Your task to perform on an android device: Search for the best books of all time on Goodreads Image 0: 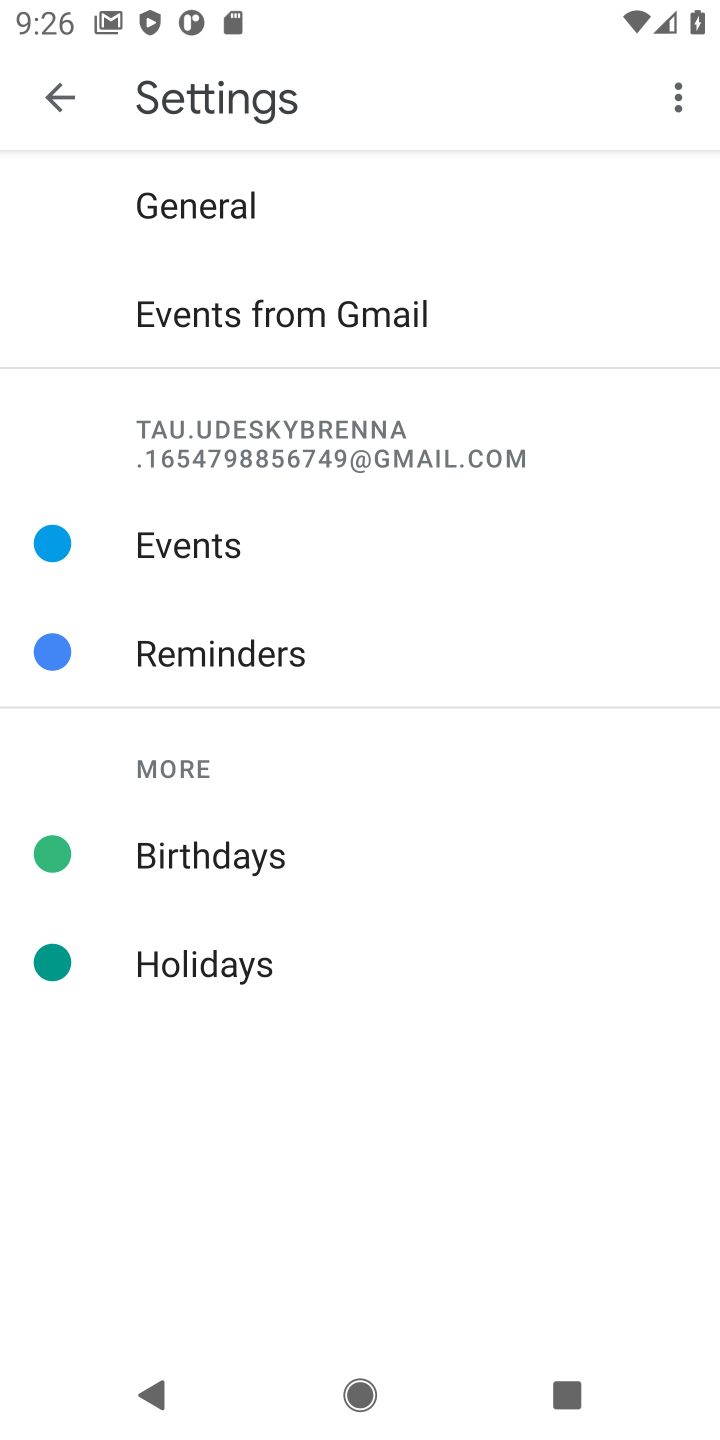
Step 0: press home button
Your task to perform on an android device: Search for the best books of all time on Goodreads Image 1: 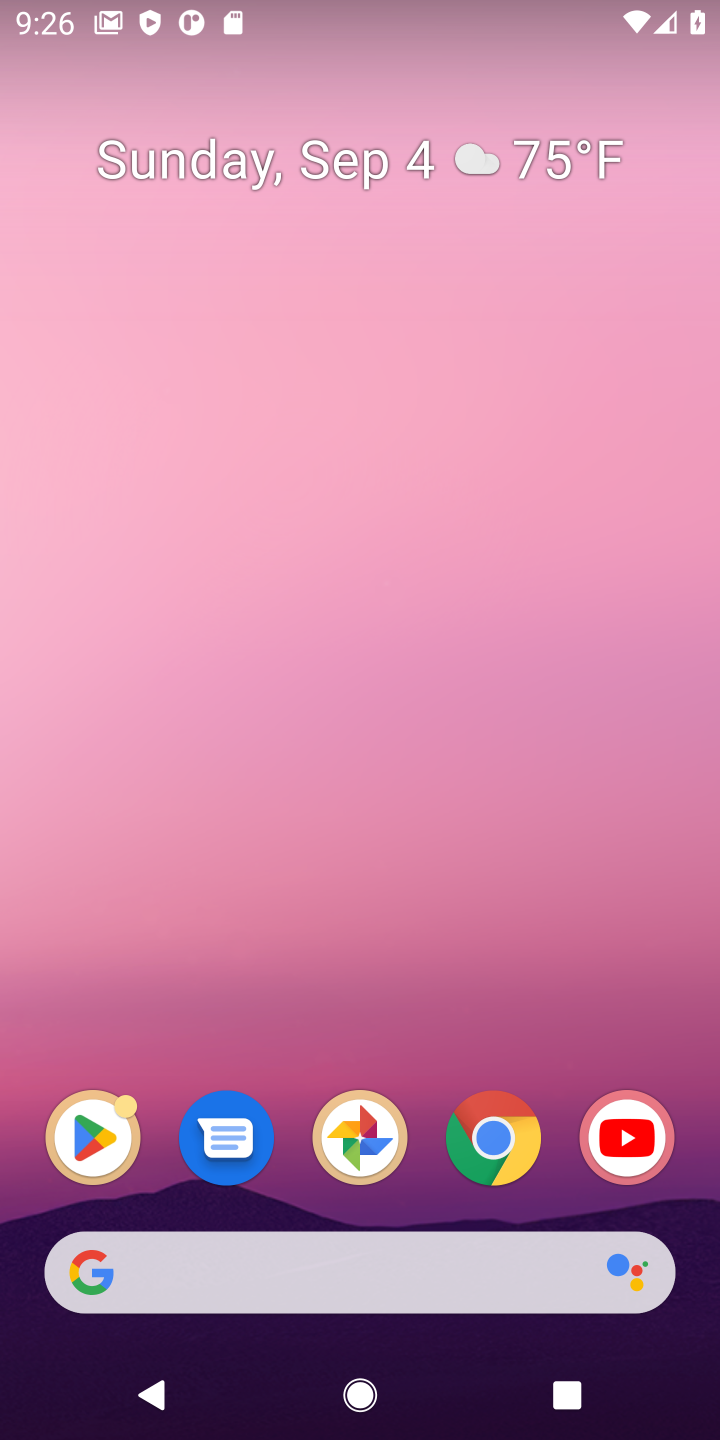
Step 1: click (513, 1132)
Your task to perform on an android device: Search for the best books of all time on Goodreads Image 2: 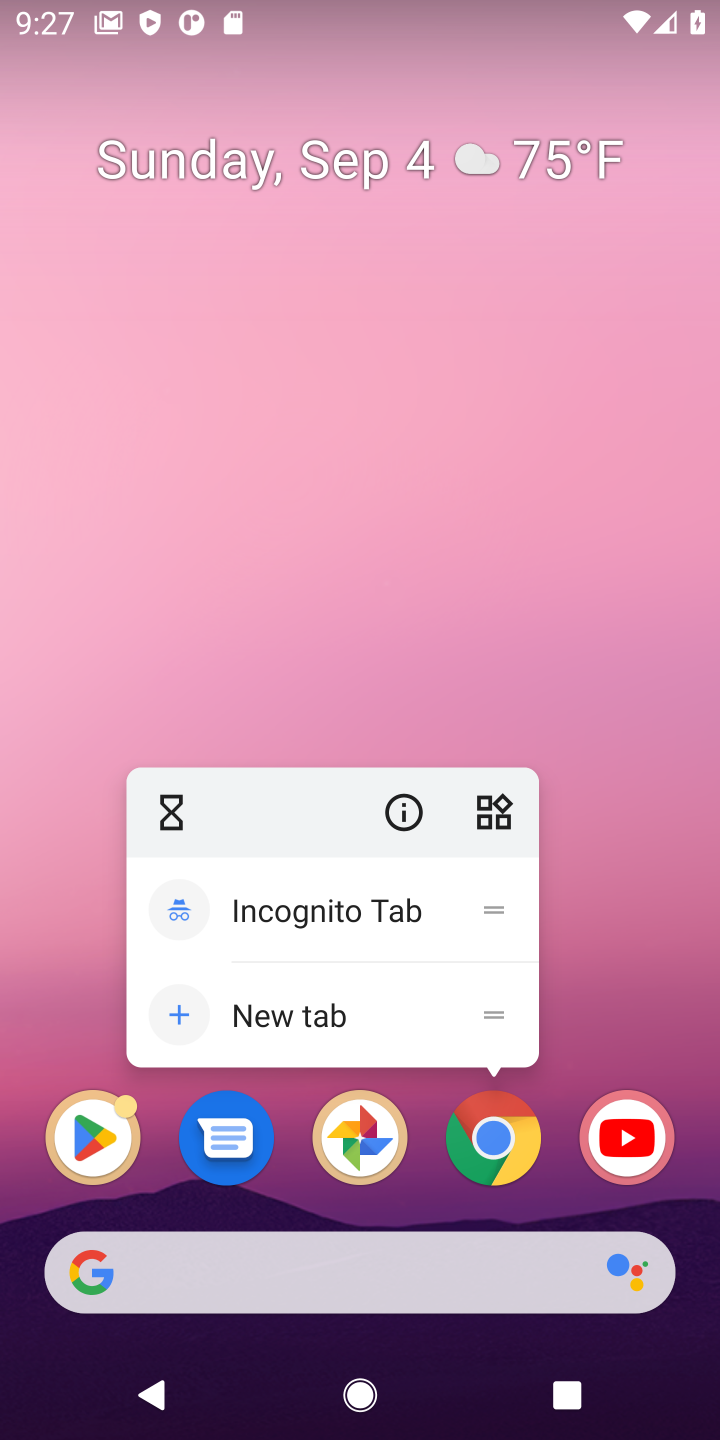
Step 2: click (513, 1132)
Your task to perform on an android device: Search for the best books of all time on Goodreads Image 3: 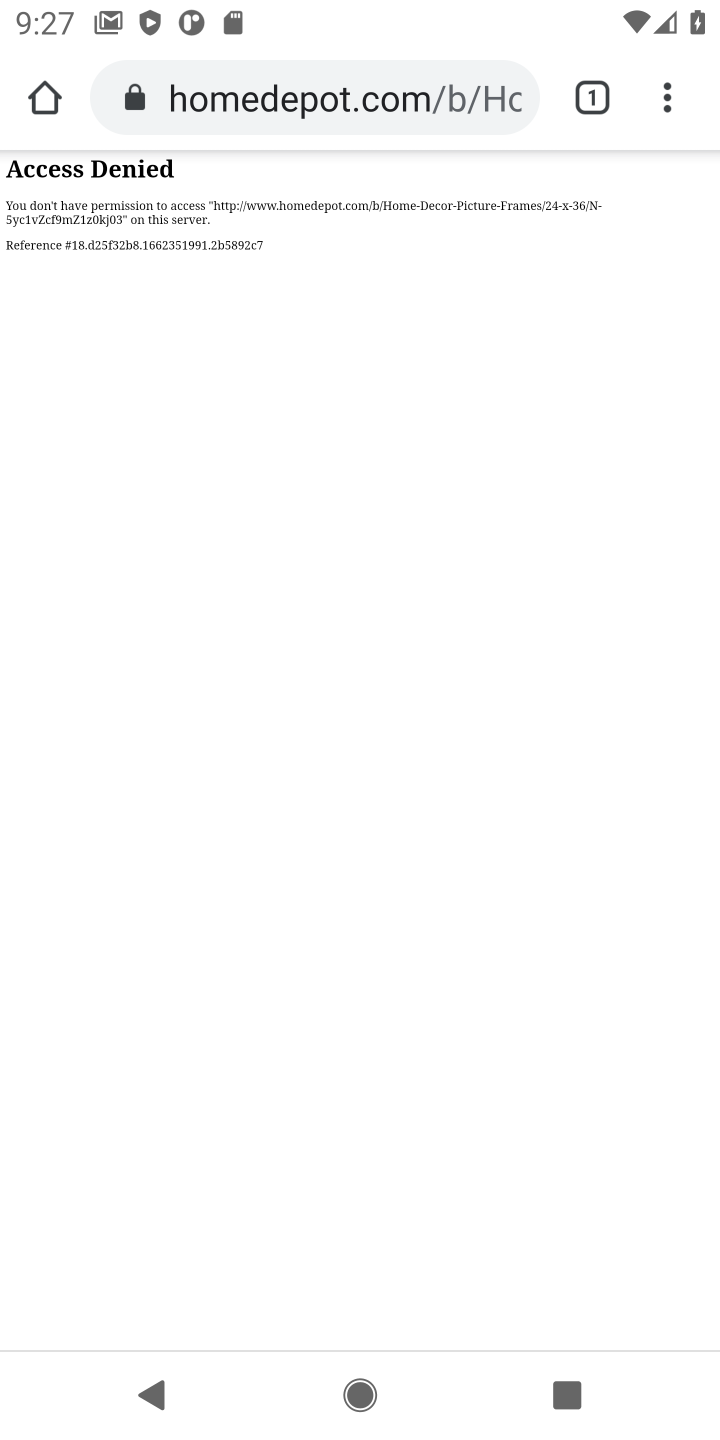
Step 3: click (404, 109)
Your task to perform on an android device: Search for the best books of all time on Goodreads Image 4: 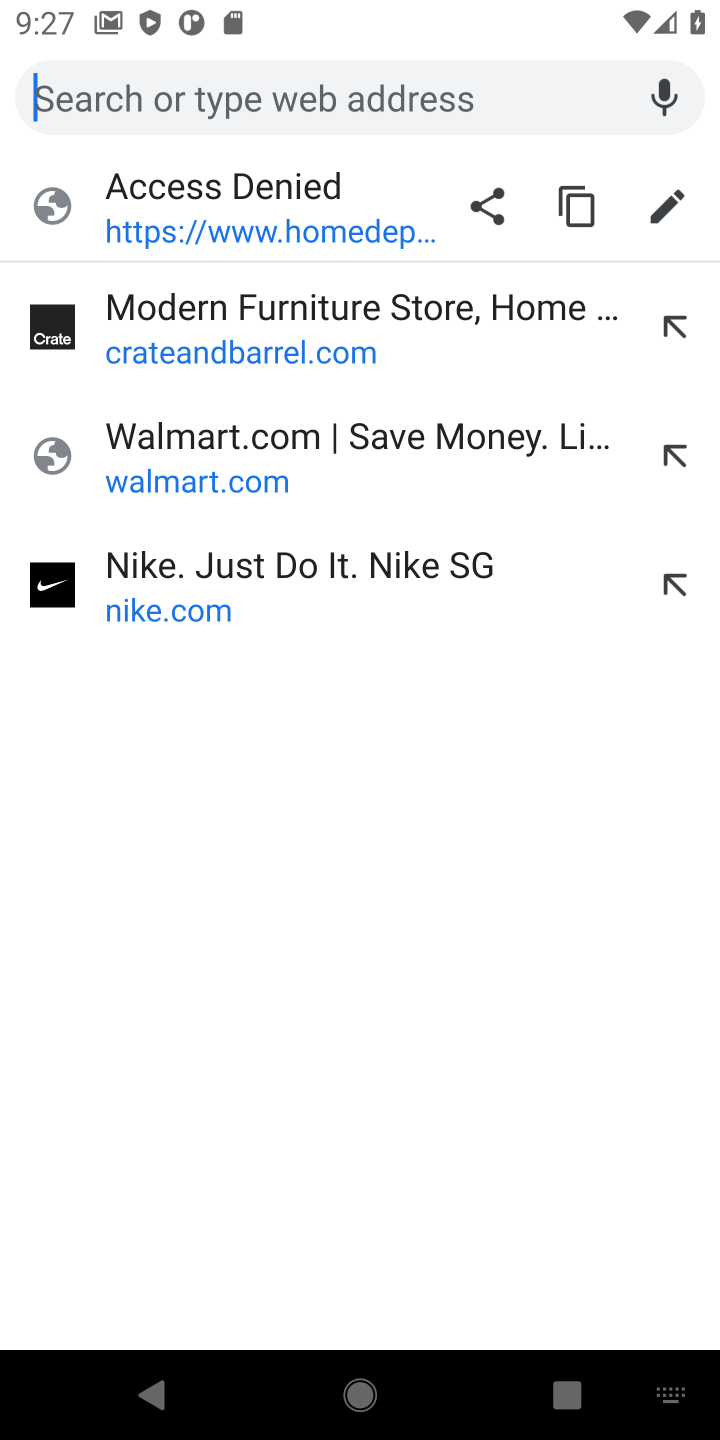
Step 4: type "goodreads"
Your task to perform on an android device: Search for the best books of all time on Goodreads Image 5: 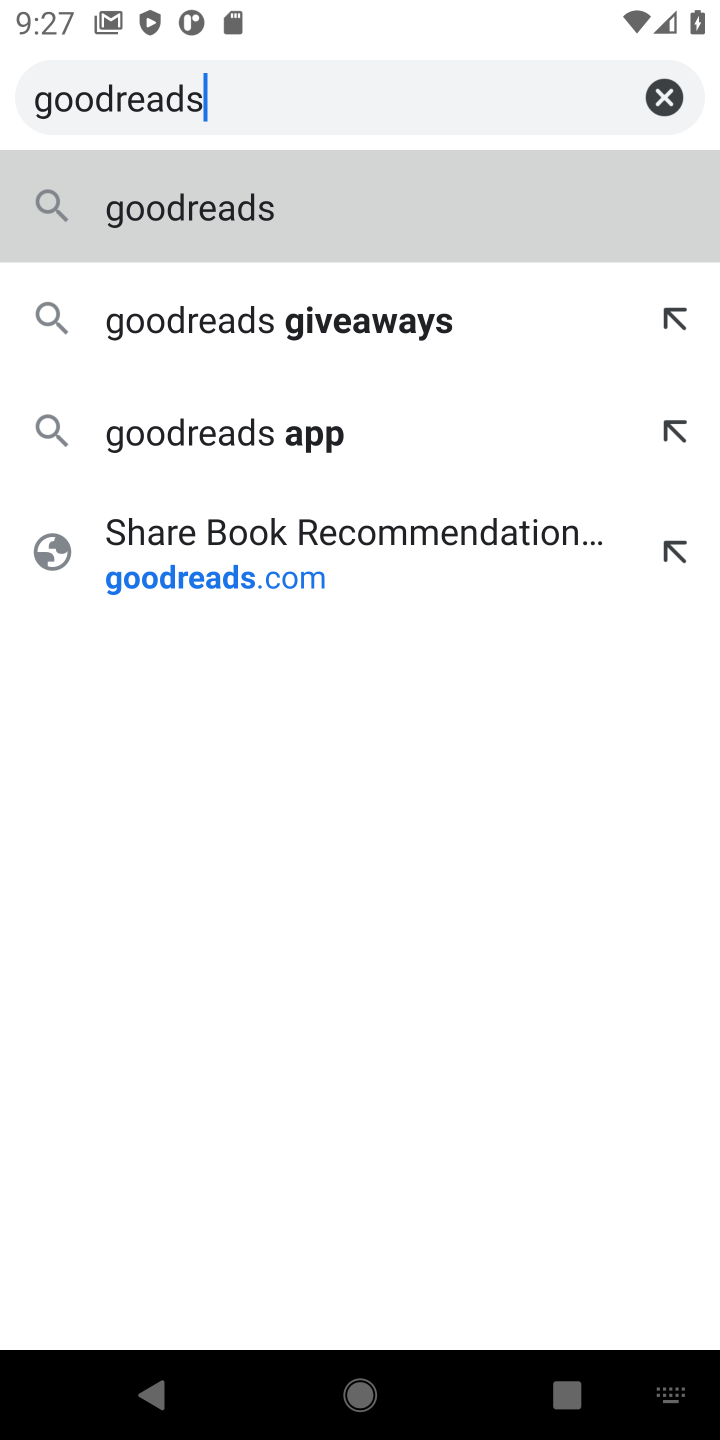
Step 5: click (294, 208)
Your task to perform on an android device: Search for the best books of all time on Goodreads Image 6: 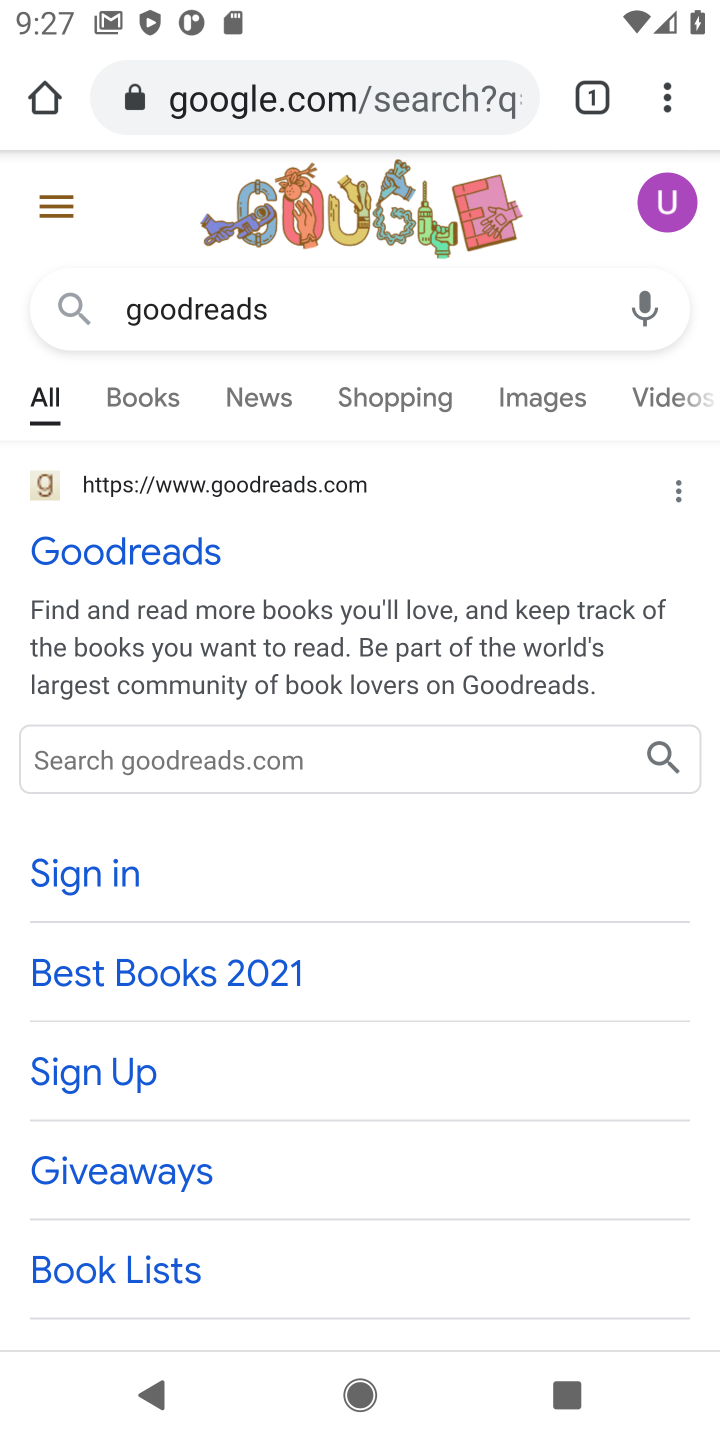
Step 6: click (297, 754)
Your task to perform on an android device: Search for the best books of all time on Goodreads Image 7: 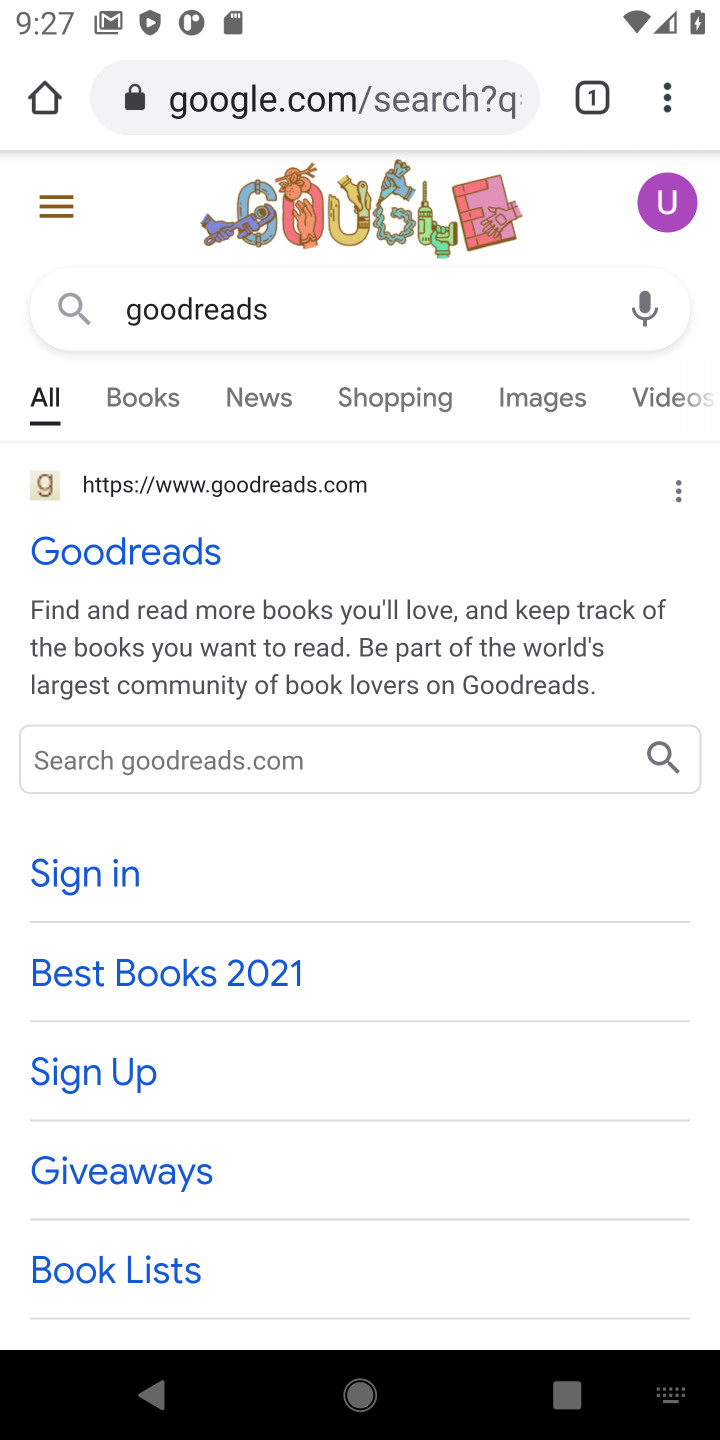
Step 7: type "best books of all time"
Your task to perform on an android device: Search for the best books of all time on Goodreads Image 8: 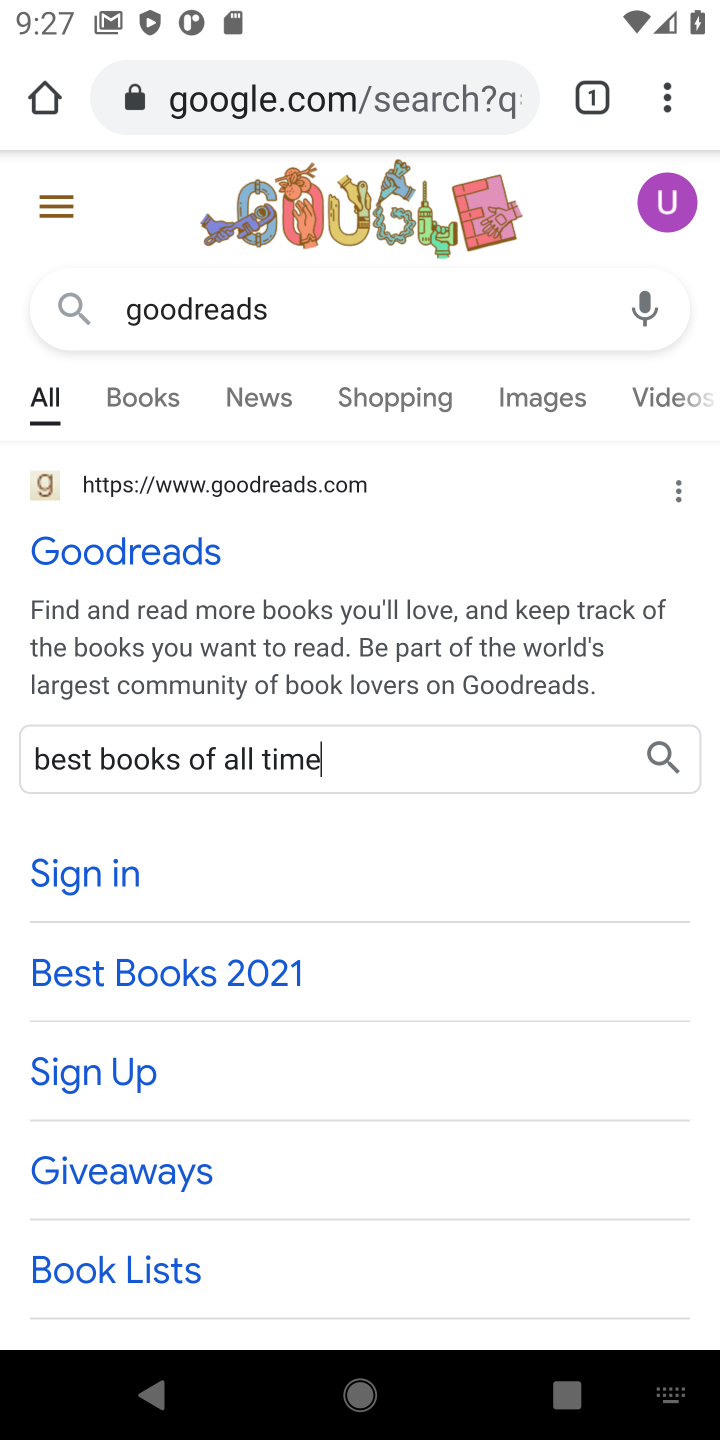
Step 8: click (668, 758)
Your task to perform on an android device: Search for the best books of all time on Goodreads Image 9: 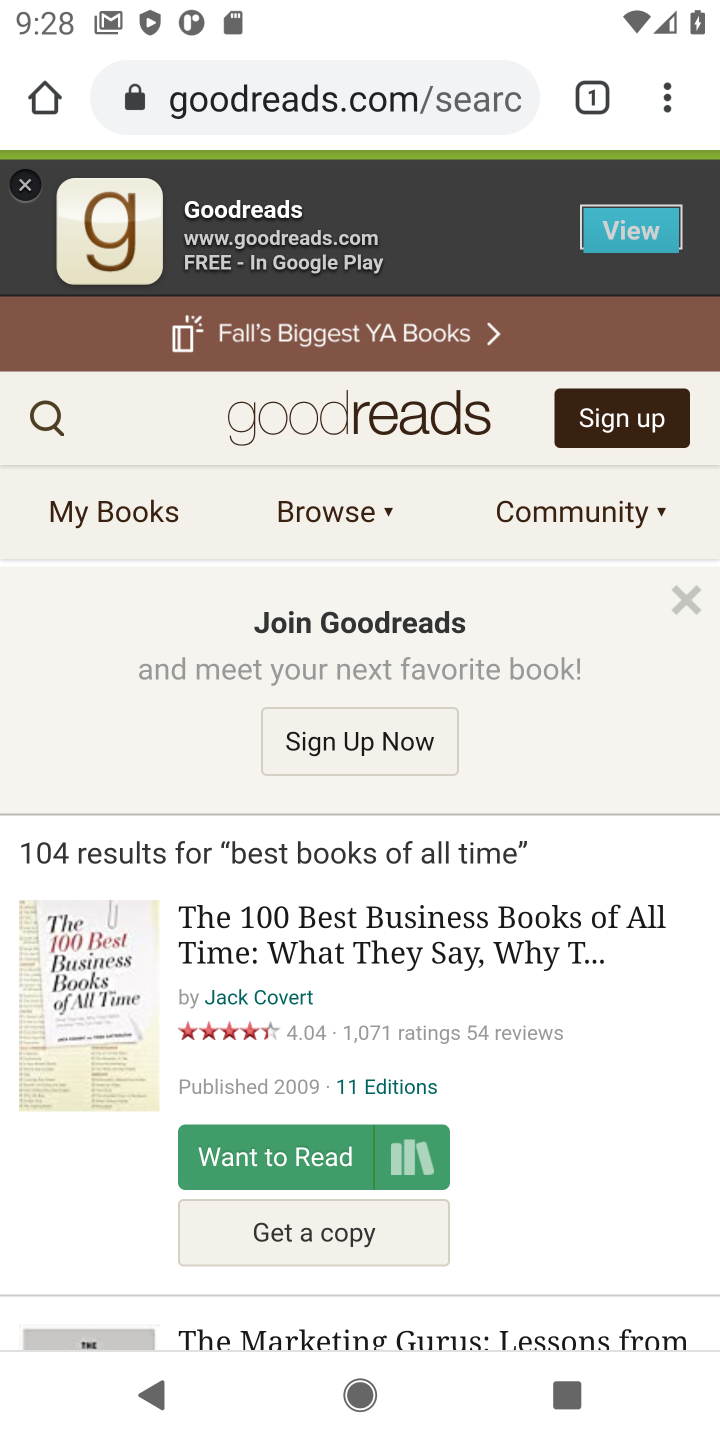
Step 9: task complete